Your task to perform on an android device: Go to Android settings Image 0: 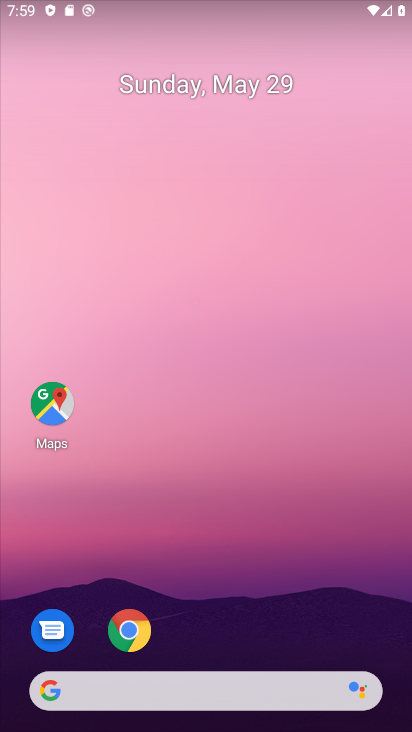
Step 0: drag from (290, 627) to (326, 179)
Your task to perform on an android device: Go to Android settings Image 1: 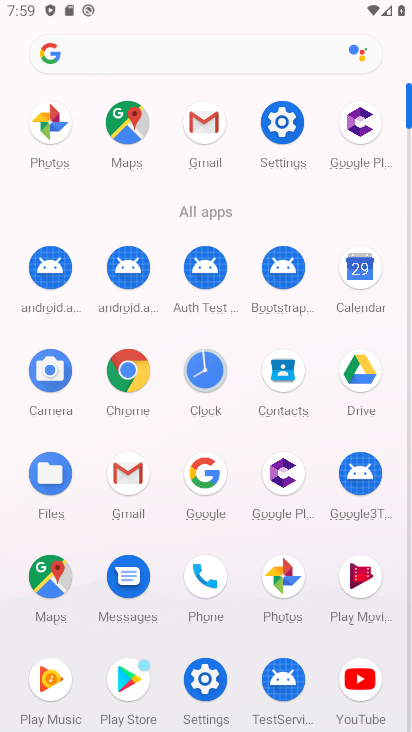
Step 1: click (280, 107)
Your task to perform on an android device: Go to Android settings Image 2: 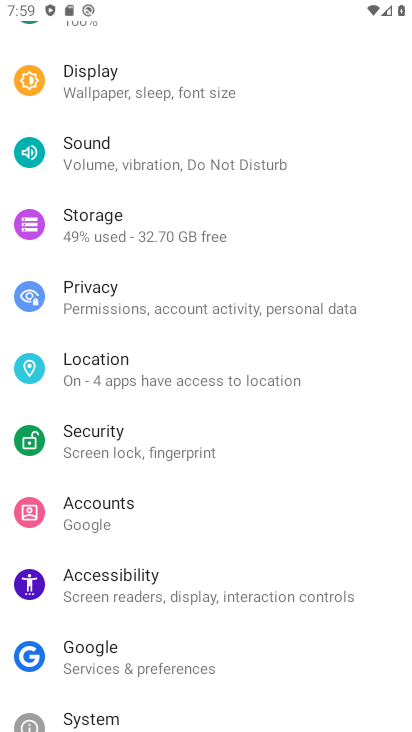
Step 2: drag from (273, 640) to (308, 35)
Your task to perform on an android device: Go to Android settings Image 3: 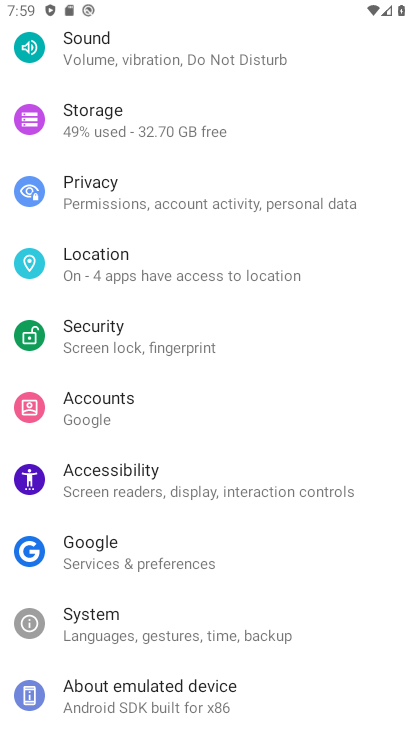
Step 3: click (202, 693)
Your task to perform on an android device: Go to Android settings Image 4: 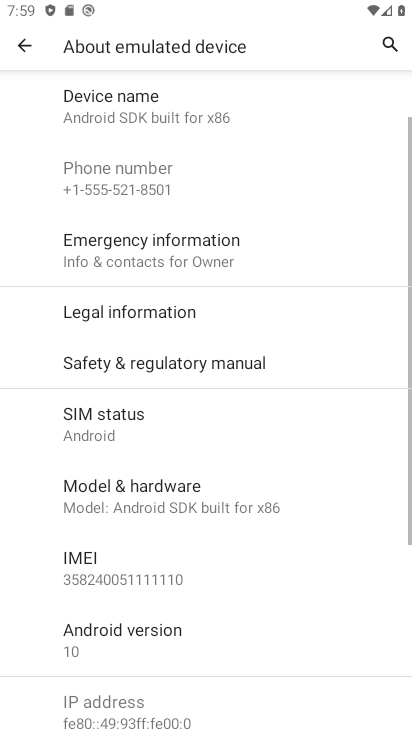
Step 4: click (183, 645)
Your task to perform on an android device: Go to Android settings Image 5: 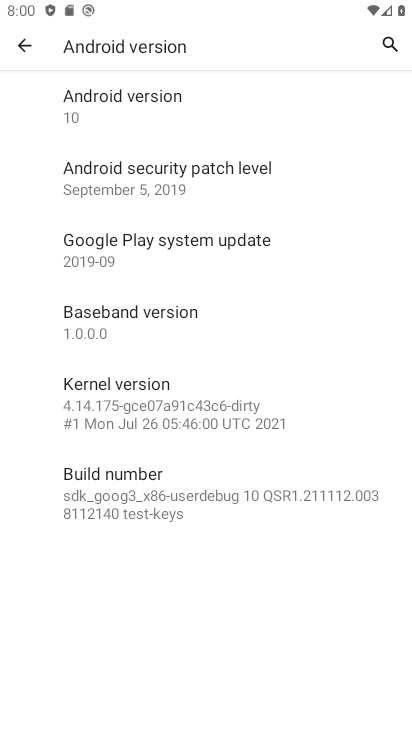
Step 5: task complete